Your task to perform on an android device: Search for "amazon basics triple a" on amazon, select the first entry, add it to the cart, then select checkout. Image 0: 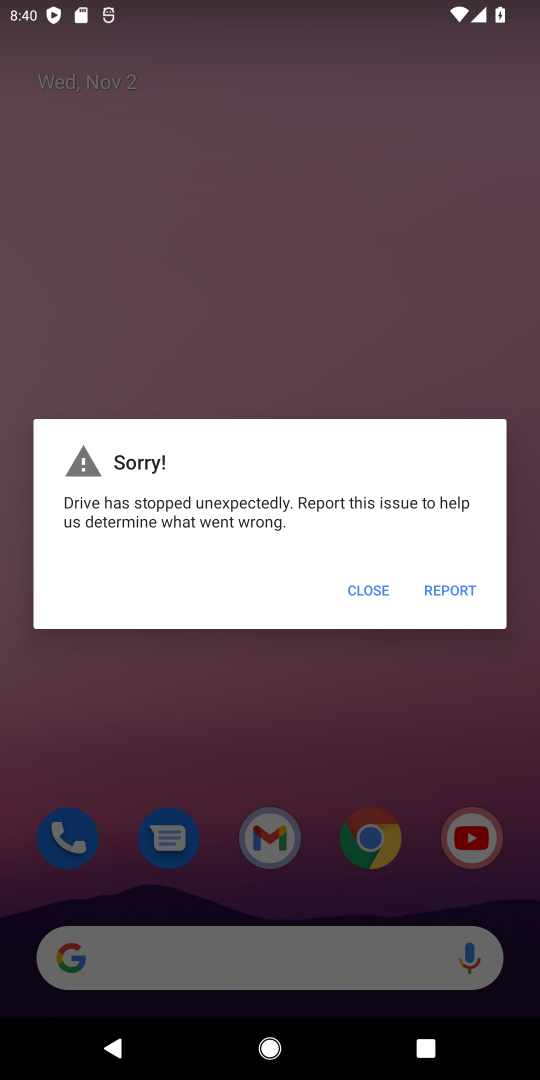
Step 0: press home button
Your task to perform on an android device: Search for "amazon basics triple a" on amazon, select the first entry, add it to the cart, then select checkout. Image 1: 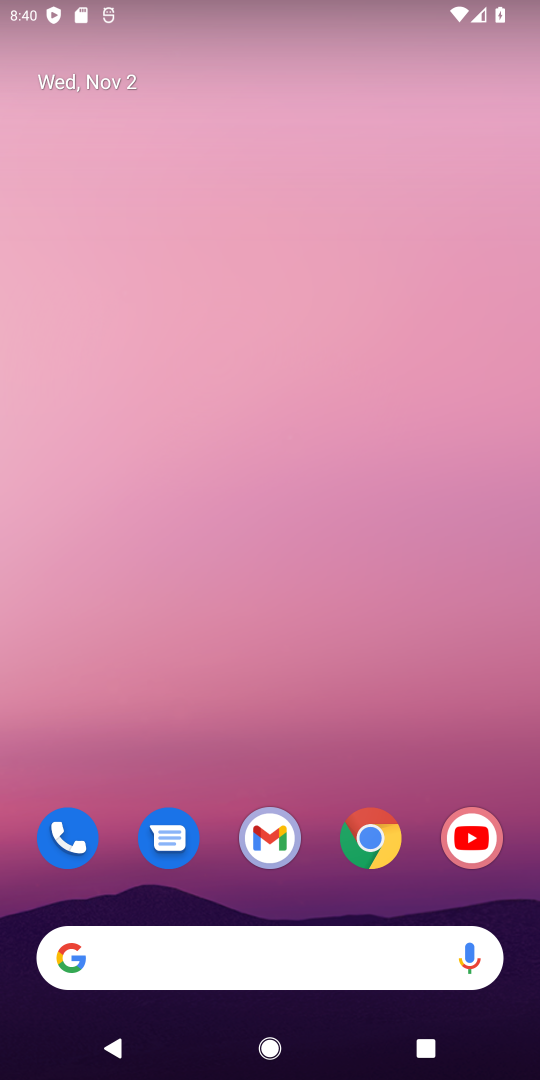
Step 1: click (377, 851)
Your task to perform on an android device: Search for "amazon basics triple a" on amazon, select the first entry, add it to the cart, then select checkout. Image 2: 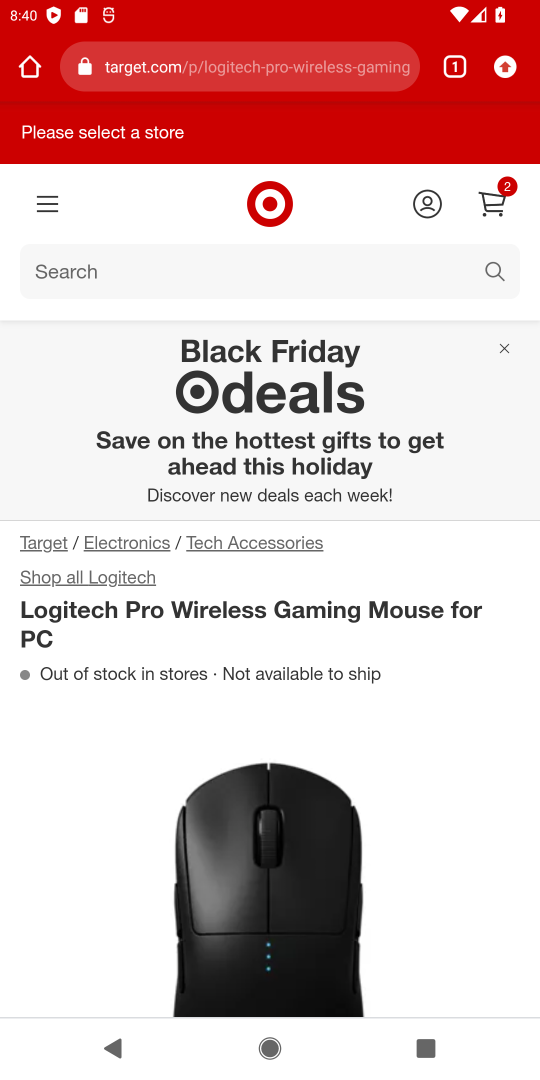
Step 2: click (225, 72)
Your task to perform on an android device: Search for "amazon basics triple a" on amazon, select the first entry, add it to the cart, then select checkout. Image 3: 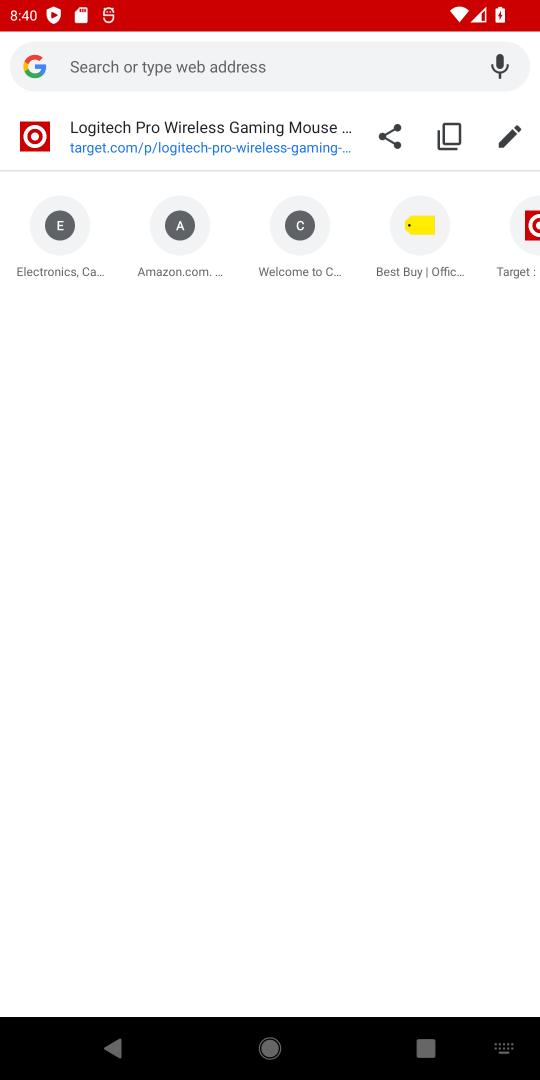
Step 3: type "amazon"
Your task to perform on an android device: Search for "amazon basics triple a" on amazon, select the first entry, add it to the cart, then select checkout. Image 4: 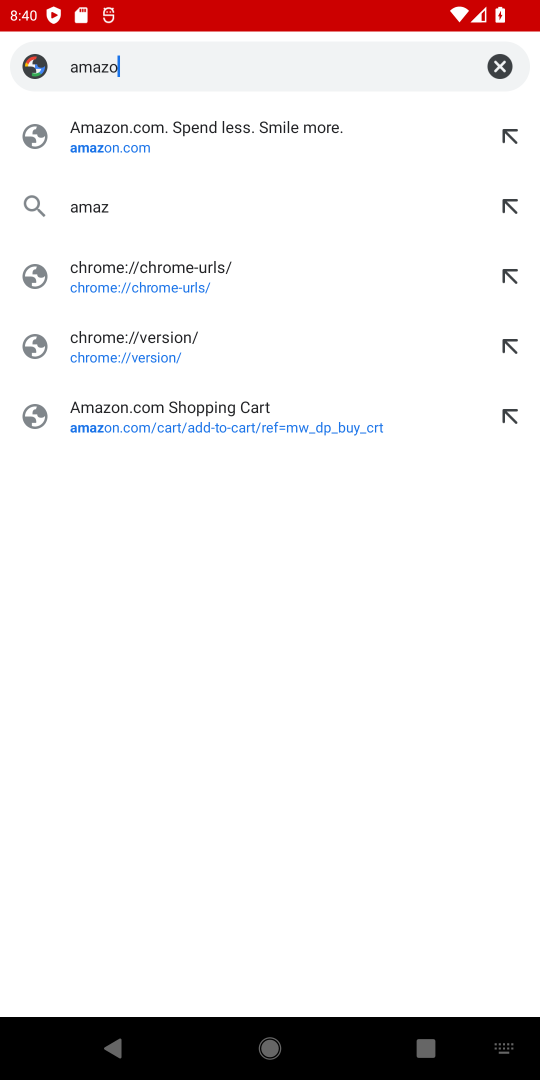
Step 4: type ""
Your task to perform on an android device: Search for "amazon basics triple a" on amazon, select the first entry, add it to the cart, then select checkout. Image 5: 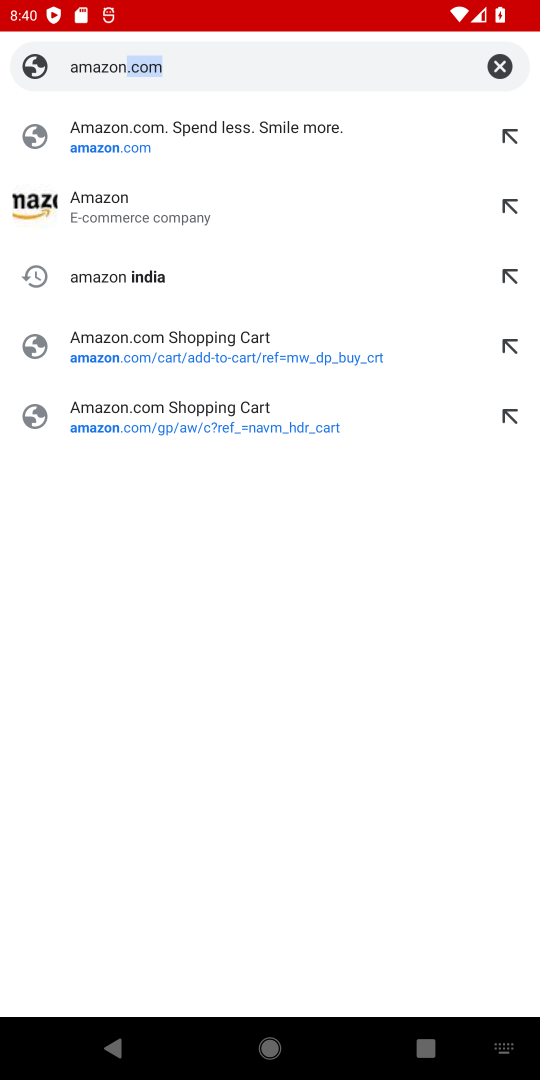
Step 5: press enter
Your task to perform on an android device: Search for "amazon basics triple a" on amazon, select the first entry, add it to the cart, then select checkout. Image 6: 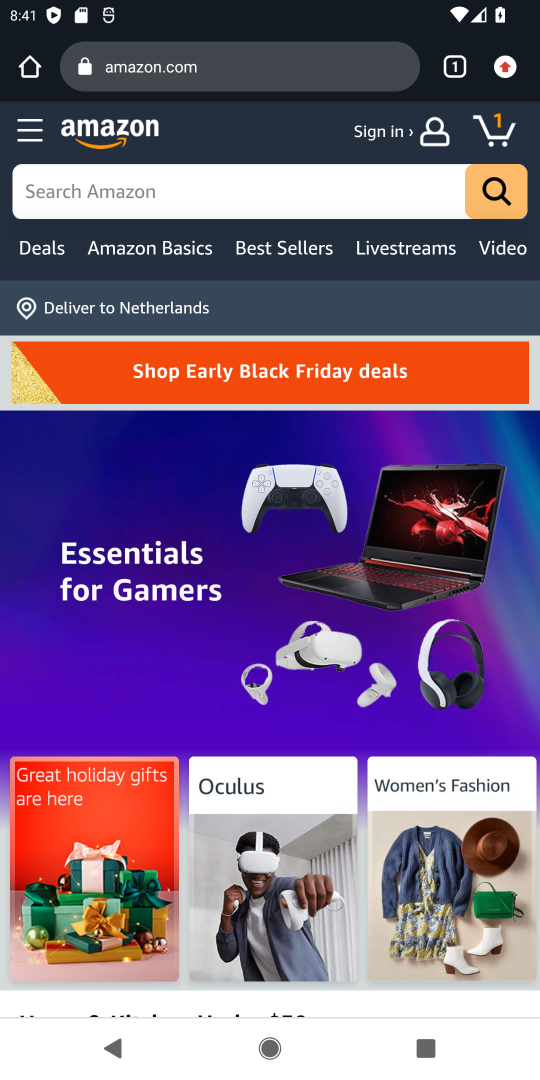
Step 6: click (248, 196)
Your task to perform on an android device: Search for "amazon basics triple a" on amazon, select the first entry, add it to the cart, then select checkout. Image 7: 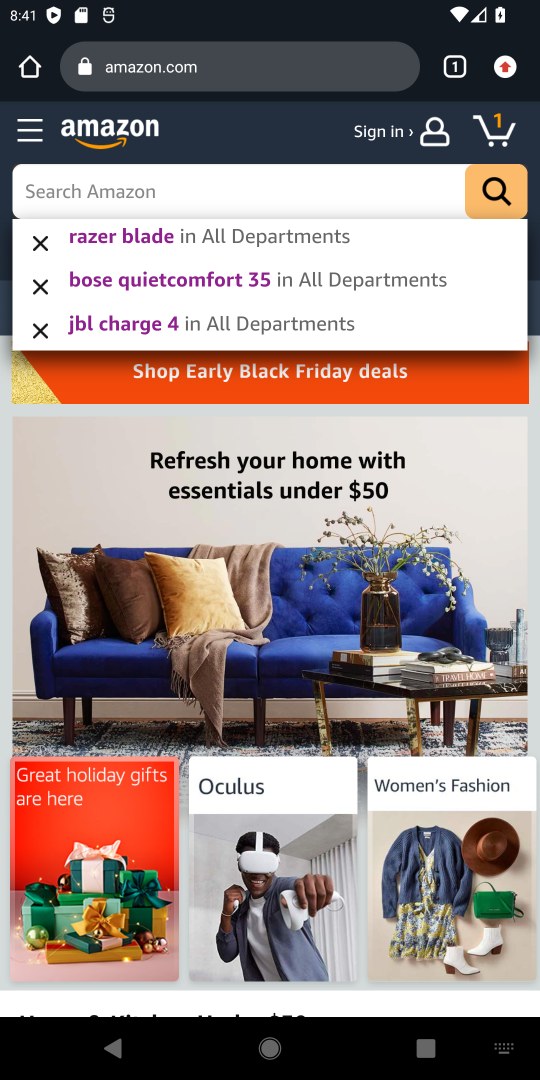
Step 7: type "amazon basics triple a"
Your task to perform on an android device: Search for "amazon basics triple a" on amazon, select the first entry, add it to the cart, then select checkout. Image 8: 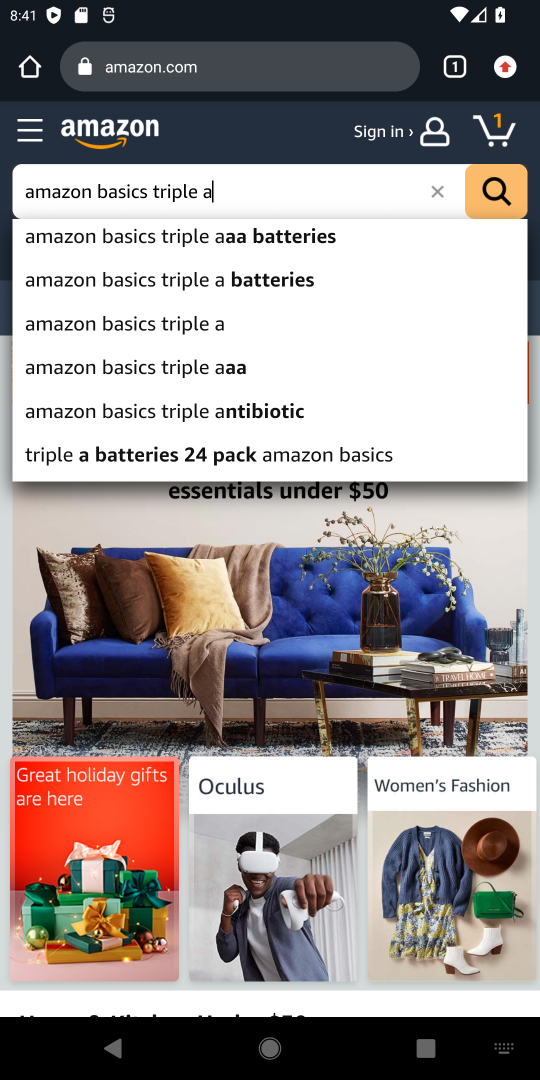
Step 8: press enter
Your task to perform on an android device: Search for "amazon basics triple a" on amazon, select the first entry, add it to the cart, then select checkout. Image 9: 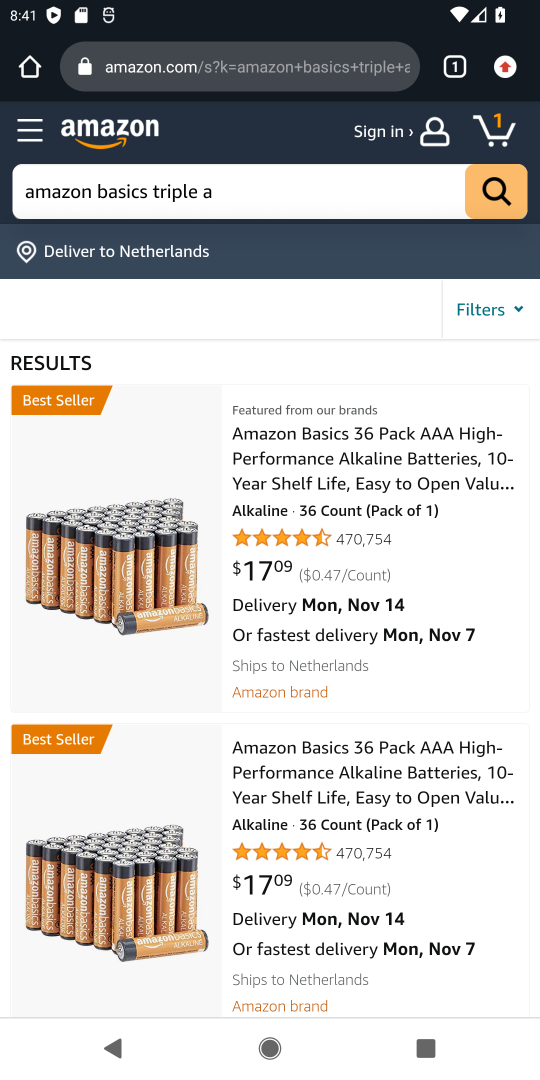
Step 9: click (370, 467)
Your task to perform on an android device: Search for "amazon basics triple a" on amazon, select the first entry, add it to the cart, then select checkout. Image 10: 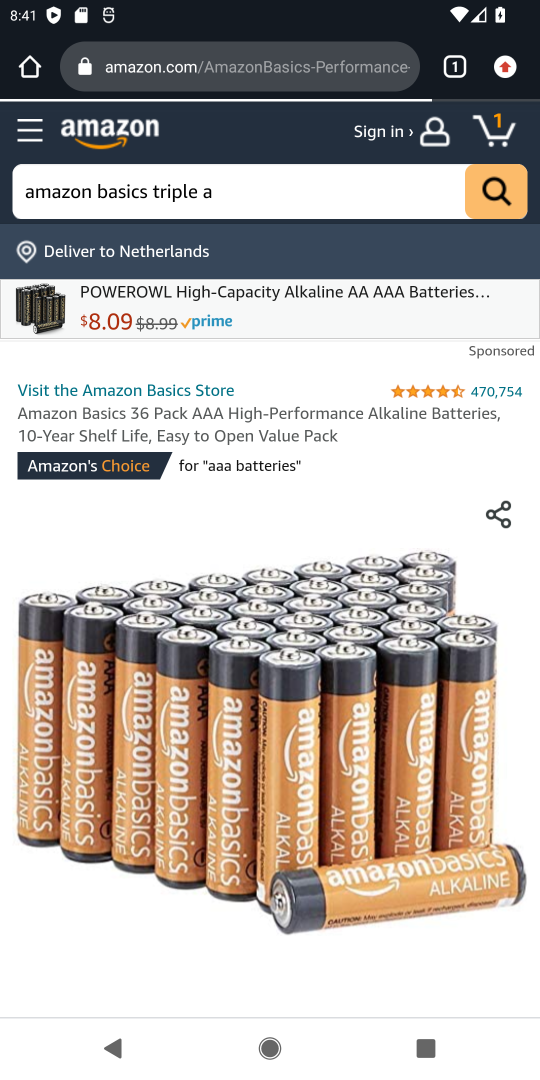
Step 10: drag from (415, 903) to (351, 356)
Your task to perform on an android device: Search for "amazon basics triple a" on amazon, select the first entry, add it to the cart, then select checkout. Image 11: 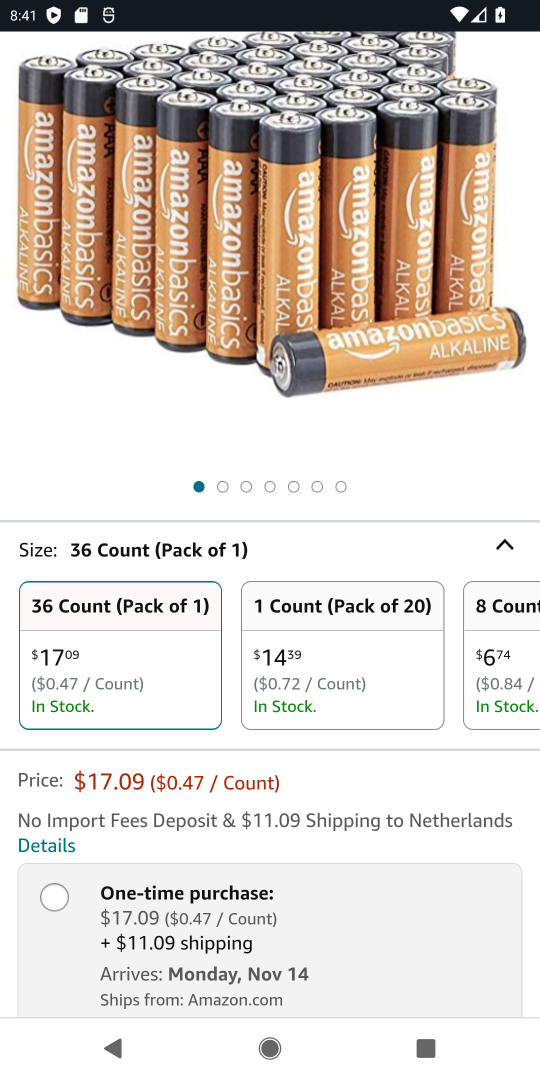
Step 11: drag from (394, 906) to (341, 256)
Your task to perform on an android device: Search for "amazon basics triple a" on amazon, select the first entry, add it to the cart, then select checkout. Image 12: 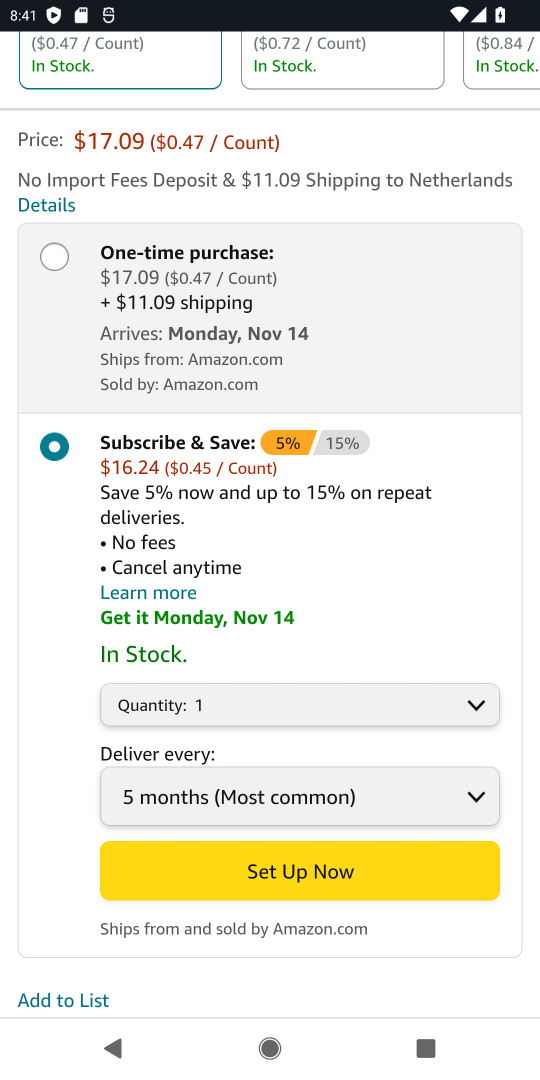
Step 12: drag from (410, 935) to (407, 504)
Your task to perform on an android device: Search for "amazon basics triple a" on amazon, select the first entry, add it to the cart, then select checkout. Image 13: 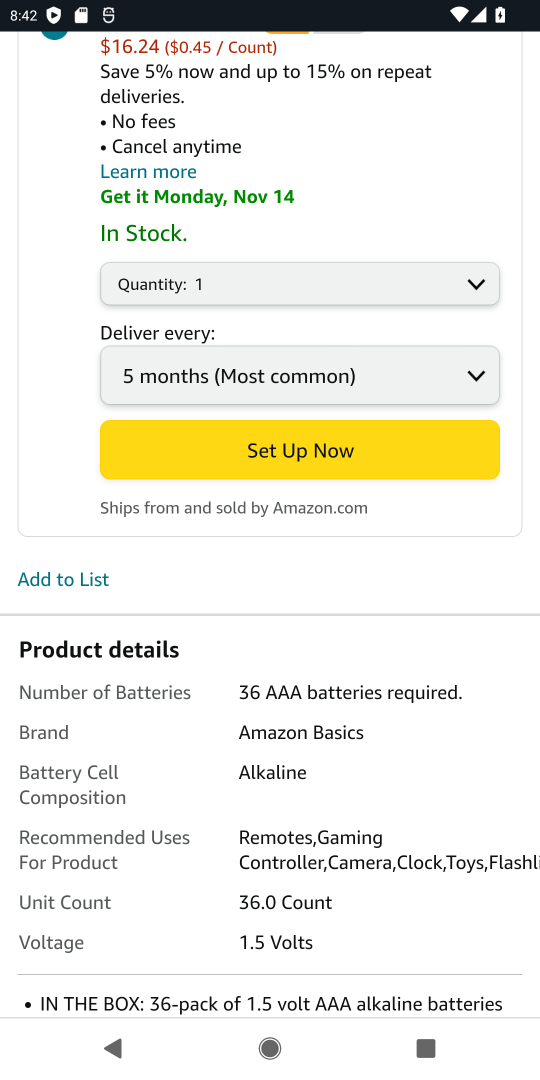
Step 13: click (352, 454)
Your task to perform on an android device: Search for "amazon basics triple a" on amazon, select the first entry, add it to the cart, then select checkout. Image 14: 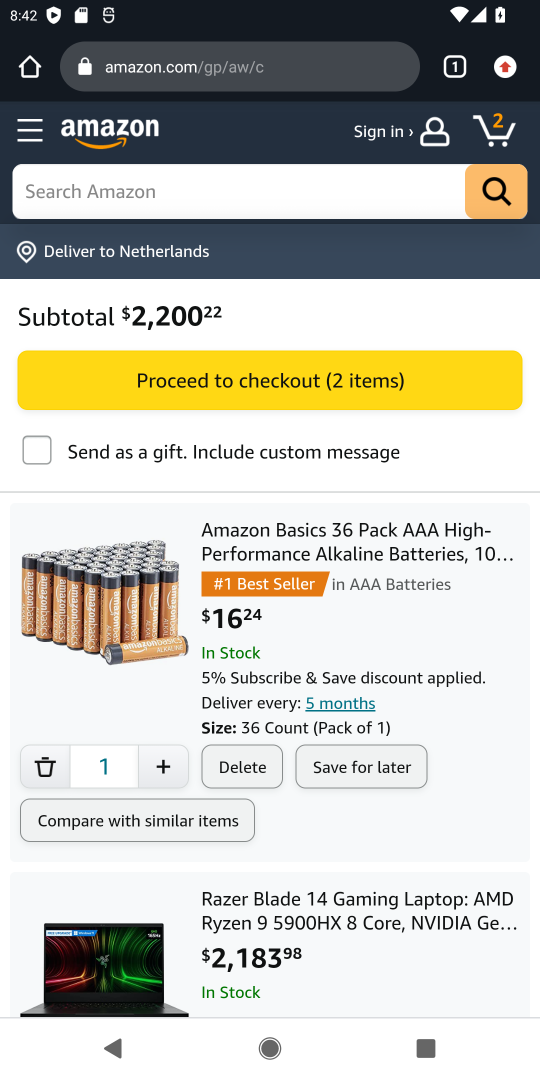
Step 14: click (276, 380)
Your task to perform on an android device: Search for "amazon basics triple a" on amazon, select the first entry, add it to the cart, then select checkout. Image 15: 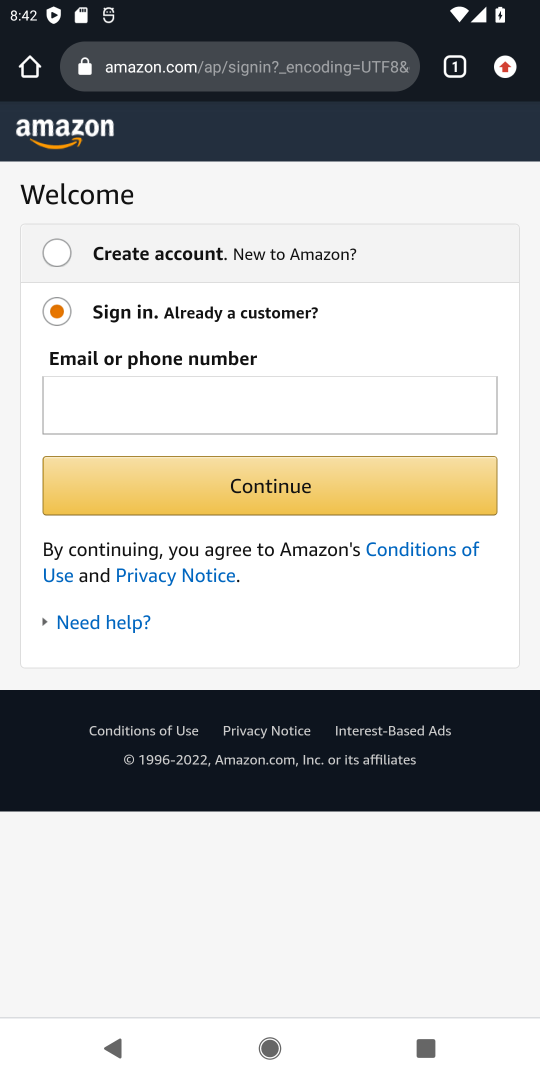
Step 15: task complete